Your task to perform on an android device: change the clock style Image 0: 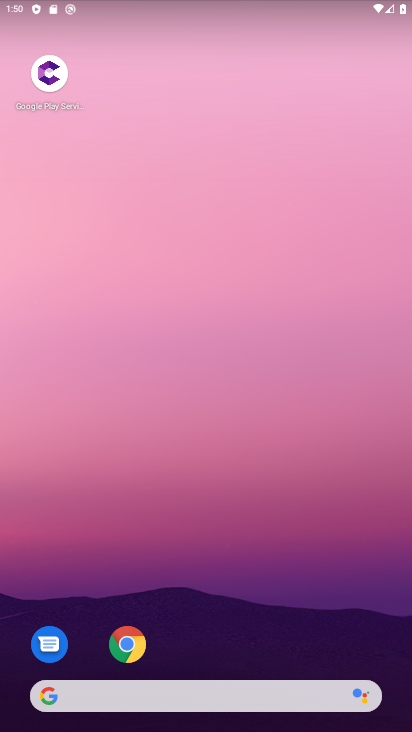
Step 0: drag from (236, 654) to (331, 107)
Your task to perform on an android device: change the clock style Image 1: 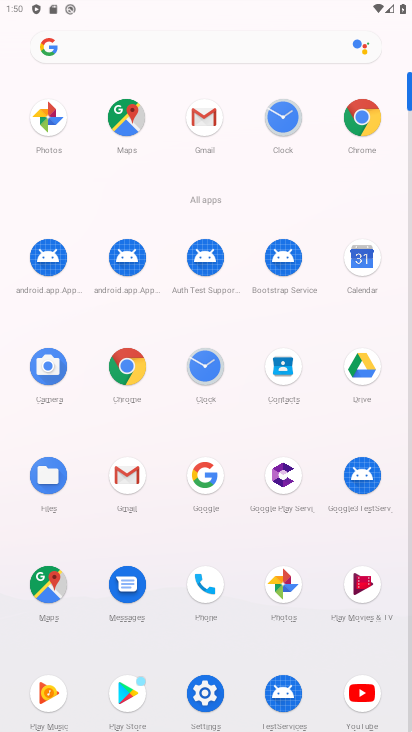
Step 1: click (285, 122)
Your task to perform on an android device: change the clock style Image 2: 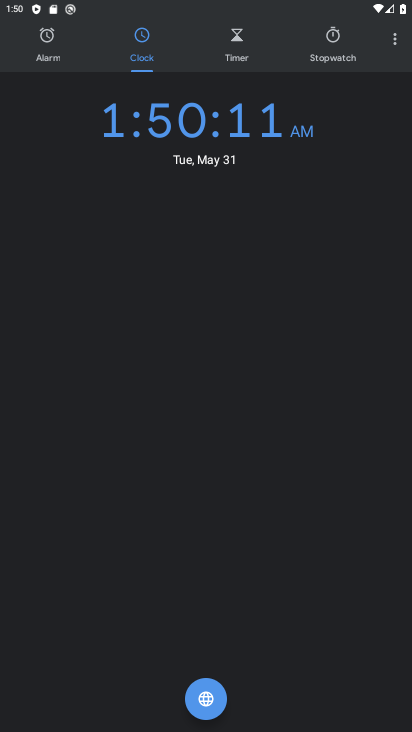
Step 2: click (392, 42)
Your task to perform on an android device: change the clock style Image 3: 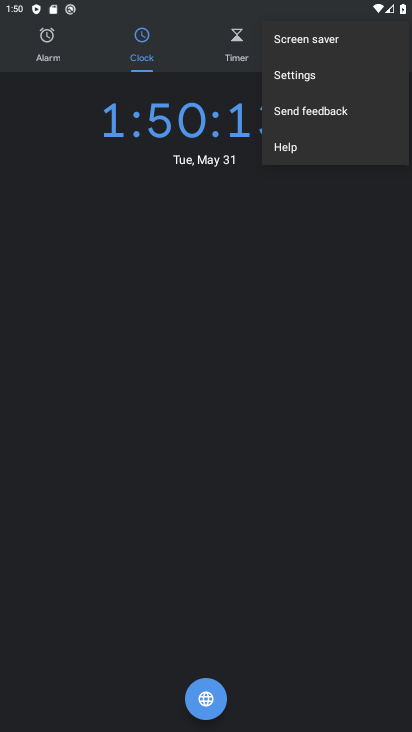
Step 3: click (314, 73)
Your task to perform on an android device: change the clock style Image 4: 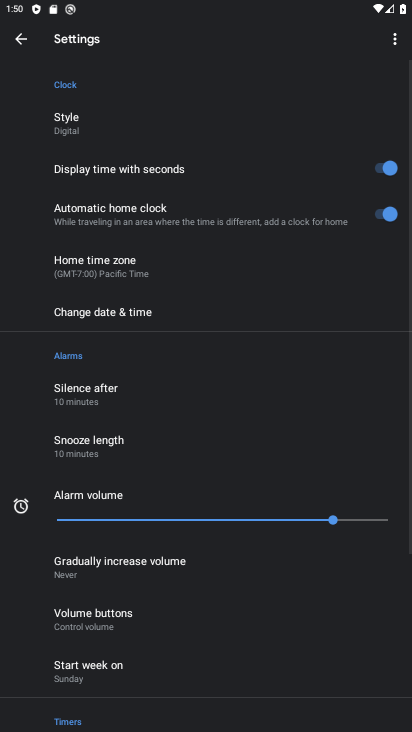
Step 4: click (78, 125)
Your task to perform on an android device: change the clock style Image 5: 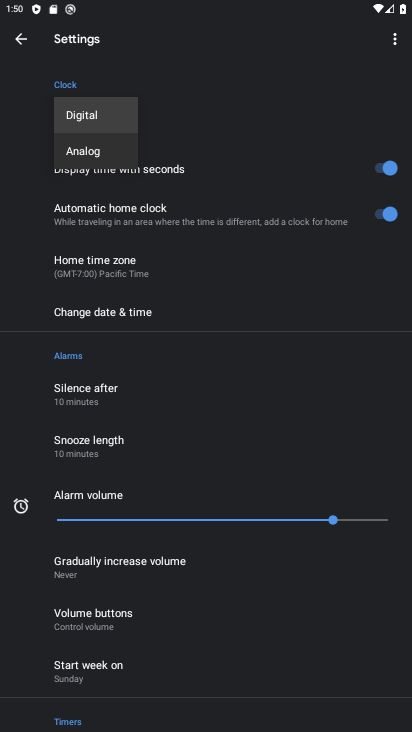
Step 5: click (100, 155)
Your task to perform on an android device: change the clock style Image 6: 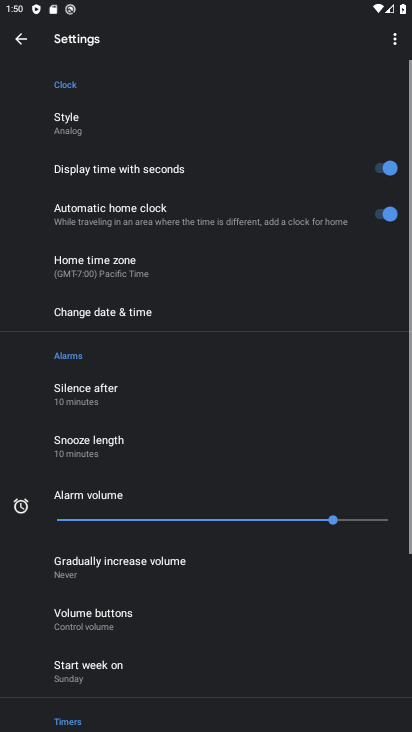
Step 6: task complete